Your task to perform on an android device: Open Yahoo.com Image 0: 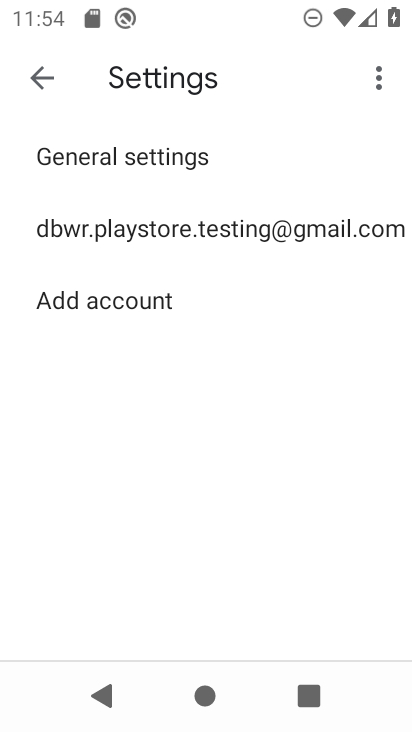
Step 0: press home button
Your task to perform on an android device: Open Yahoo.com Image 1: 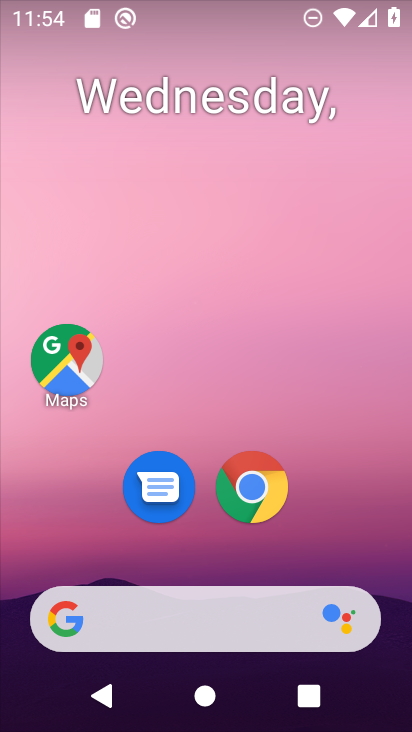
Step 1: click (255, 479)
Your task to perform on an android device: Open Yahoo.com Image 2: 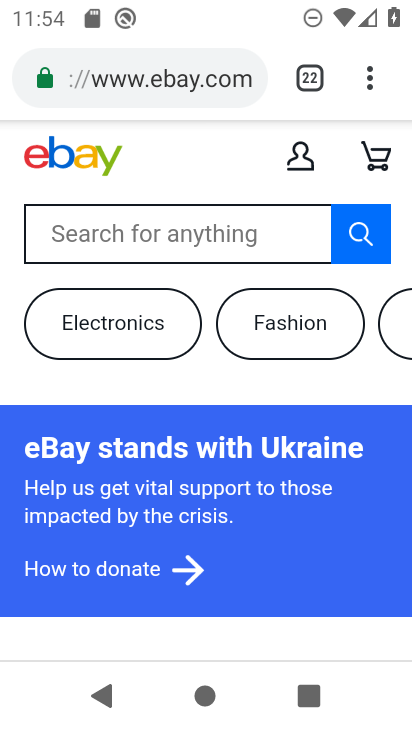
Step 2: click (372, 77)
Your task to perform on an android device: Open Yahoo.com Image 3: 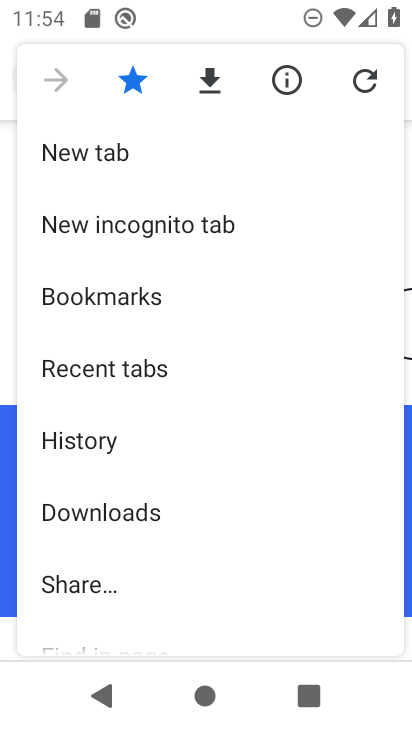
Step 3: click (91, 142)
Your task to perform on an android device: Open Yahoo.com Image 4: 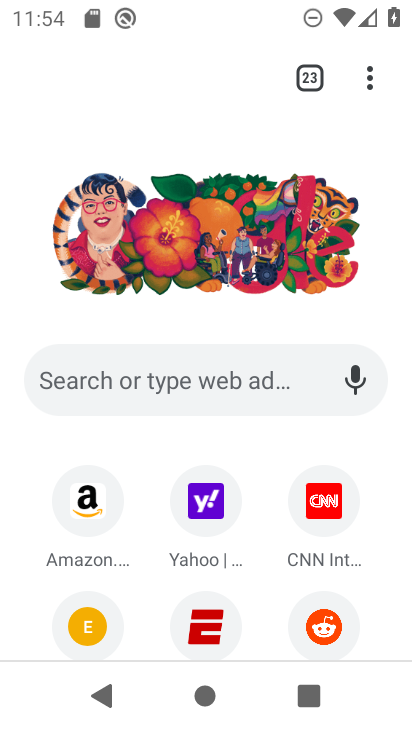
Step 4: click (202, 505)
Your task to perform on an android device: Open Yahoo.com Image 5: 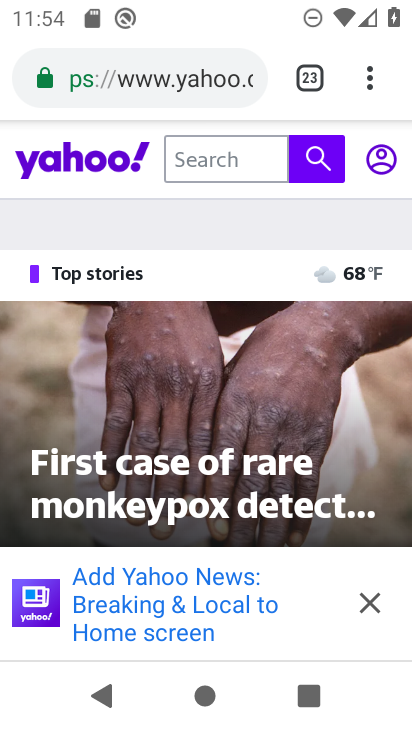
Step 5: task complete